Your task to perform on an android device: delete the emails in spam in the gmail app Image 0: 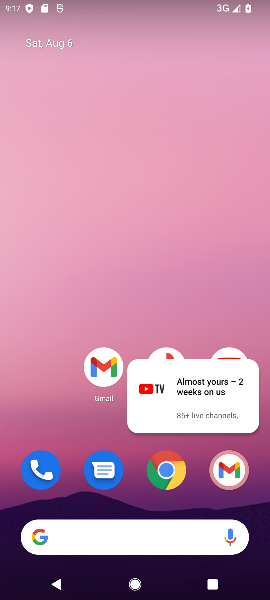
Step 0: drag from (104, 487) to (84, 96)
Your task to perform on an android device: delete the emails in spam in the gmail app Image 1: 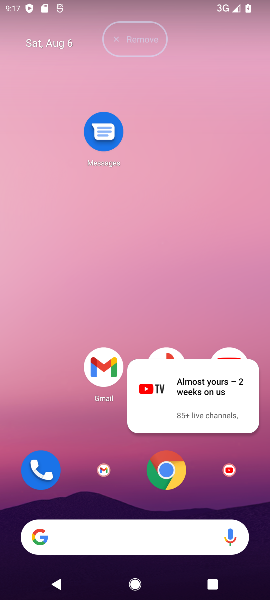
Step 1: click (156, 241)
Your task to perform on an android device: delete the emails in spam in the gmail app Image 2: 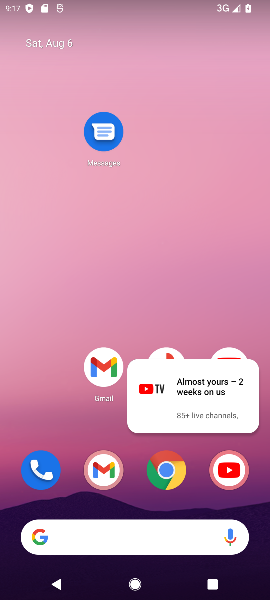
Step 2: drag from (86, 484) to (109, 50)
Your task to perform on an android device: delete the emails in spam in the gmail app Image 3: 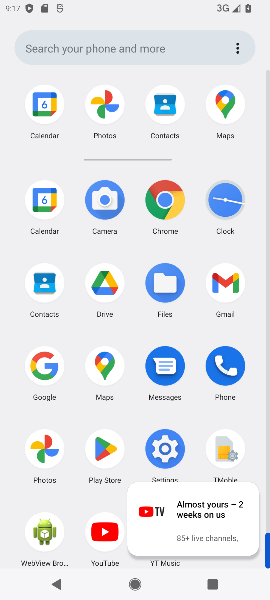
Step 3: click (236, 294)
Your task to perform on an android device: delete the emails in spam in the gmail app Image 4: 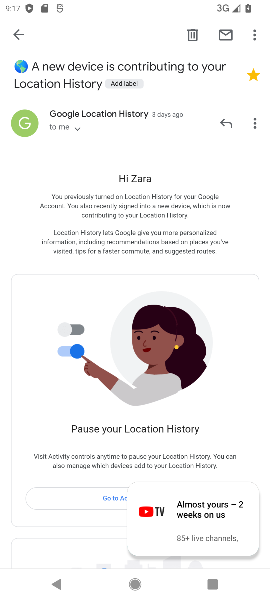
Step 4: click (19, 38)
Your task to perform on an android device: delete the emails in spam in the gmail app Image 5: 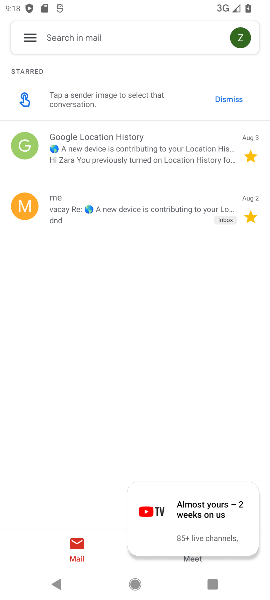
Step 5: click (27, 36)
Your task to perform on an android device: delete the emails in spam in the gmail app Image 6: 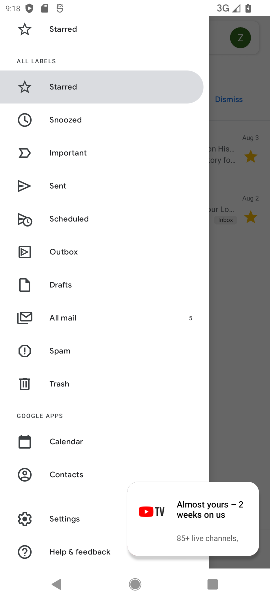
Step 6: click (75, 322)
Your task to perform on an android device: delete the emails in spam in the gmail app Image 7: 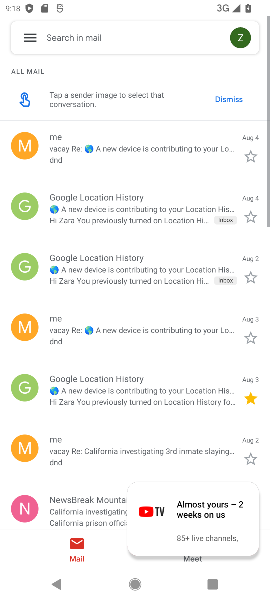
Step 7: click (119, 155)
Your task to perform on an android device: delete the emails in spam in the gmail app Image 8: 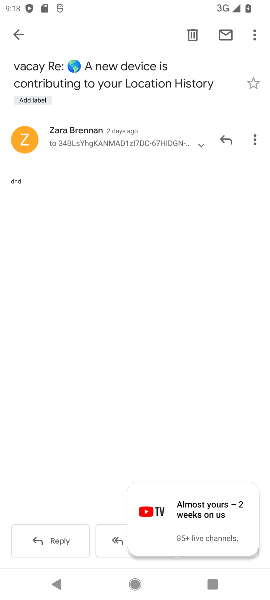
Step 8: click (188, 40)
Your task to perform on an android device: delete the emails in spam in the gmail app Image 9: 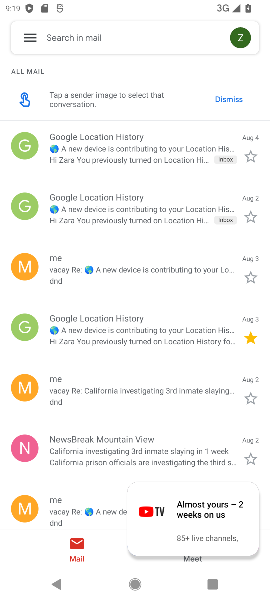
Step 9: task complete